Your task to perform on an android device: add a label to a message in the gmail app Image 0: 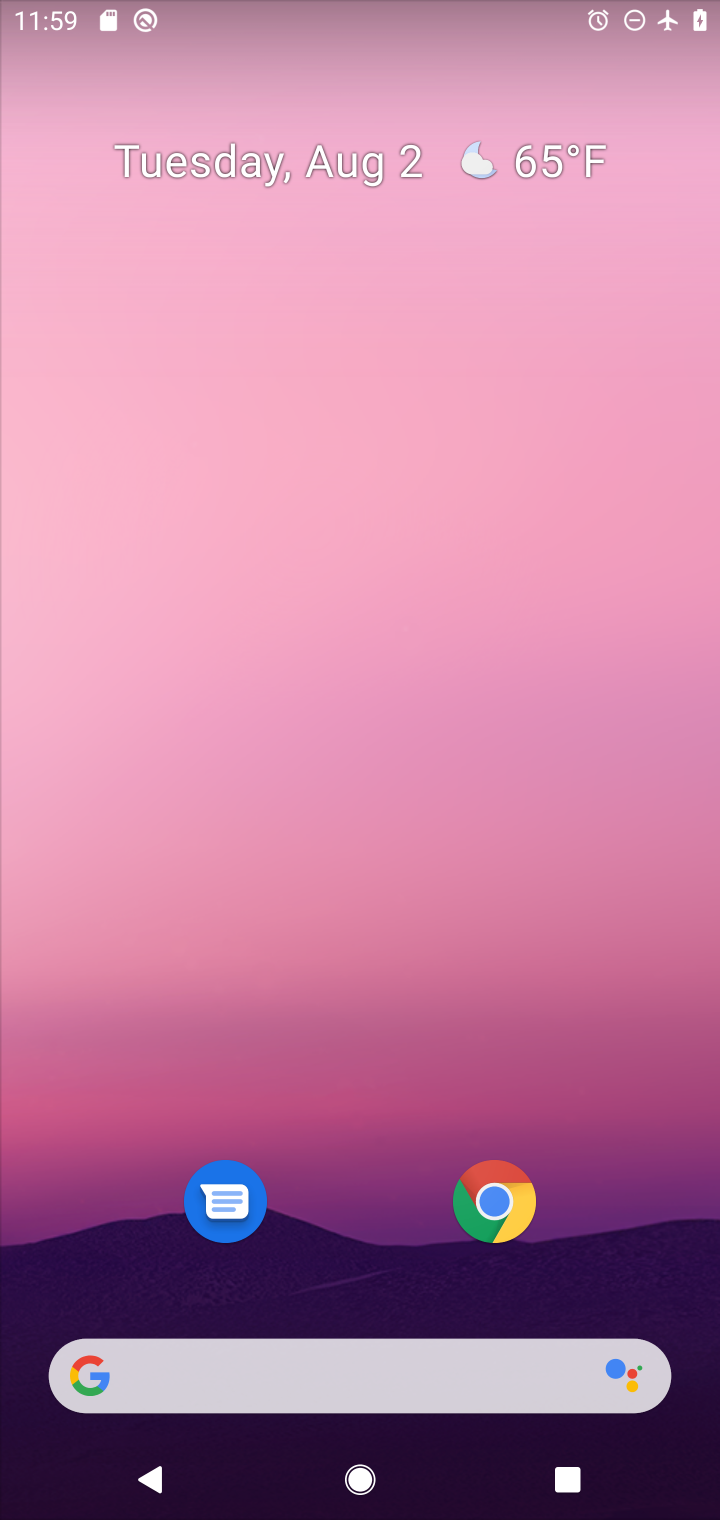
Step 0: drag from (404, 1292) to (212, 57)
Your task to perform on an android device: add a label to a message in the gmail app Image 1: 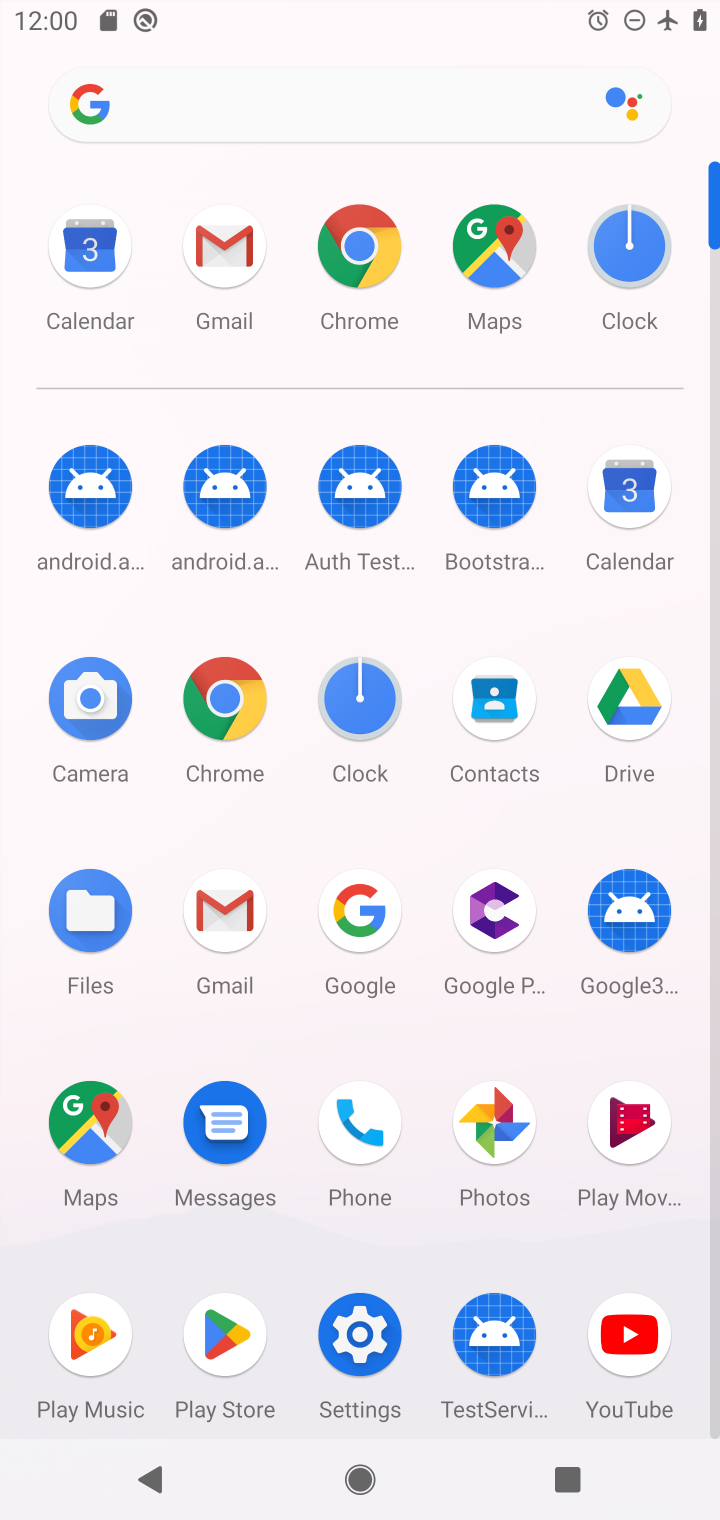
Step 1: click (228, 928)
Your task to perform on an android device: add a label to a message in the gmail app Image 2: 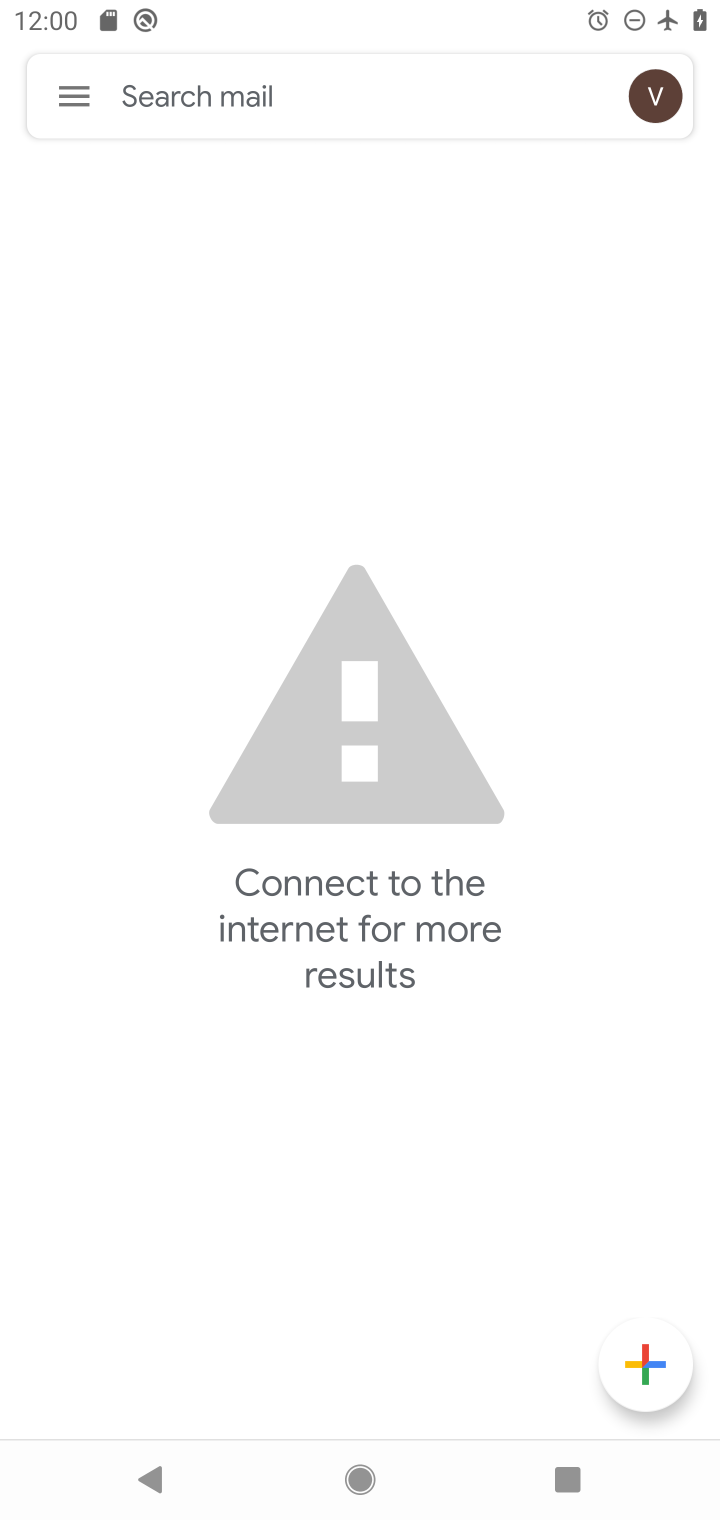
Step 2: task complete